Your task to perform on an android device: toggle improve location accuracy Image 0: 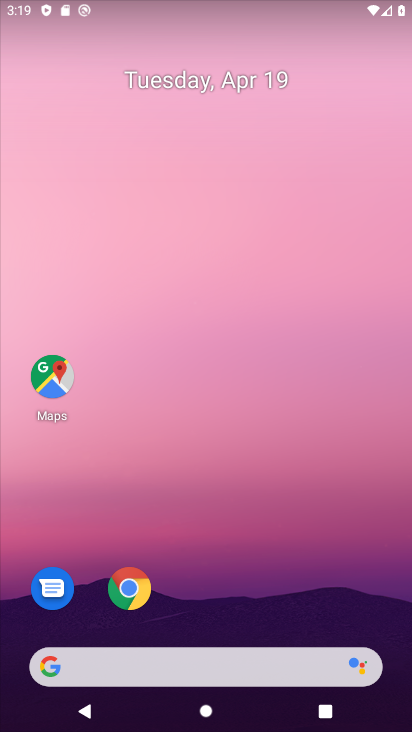
Step 0: drag from (243, 560) to (262, 134)
Your task to perform on an android device: toggle improve location accuracy Image 1: 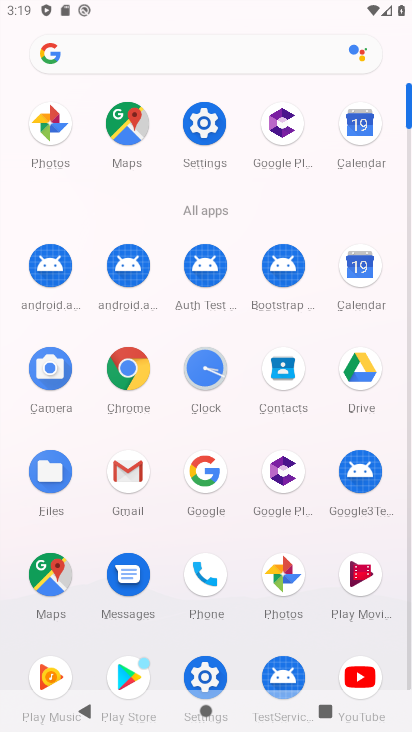
Step 1: click (193, 128)
Your task to perform on an android device: toggle improve location accuracy Image 2: 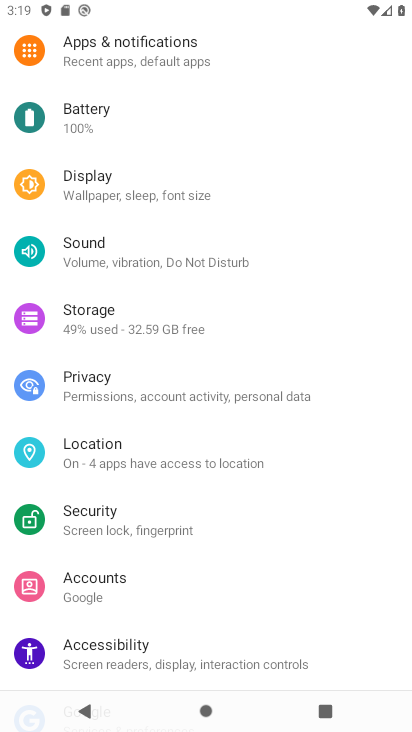
Step 2: click (137, 450)
Your task to perform on an android device: toggle improve location accuracy Image 3: 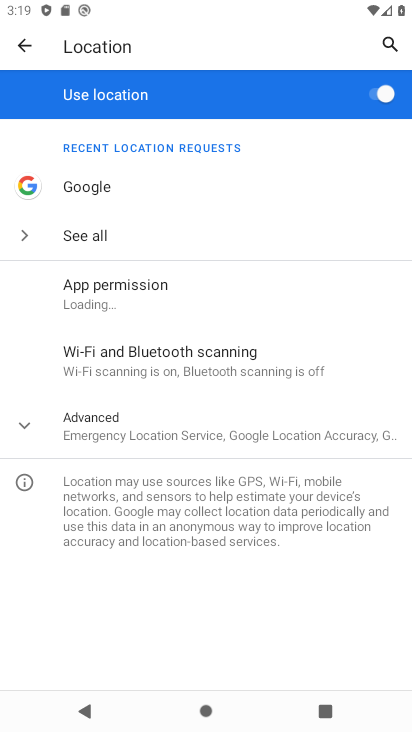
Step 3: click (163, 414)
Your task to perform on an android device: toggle improve location accuracy Image 4: 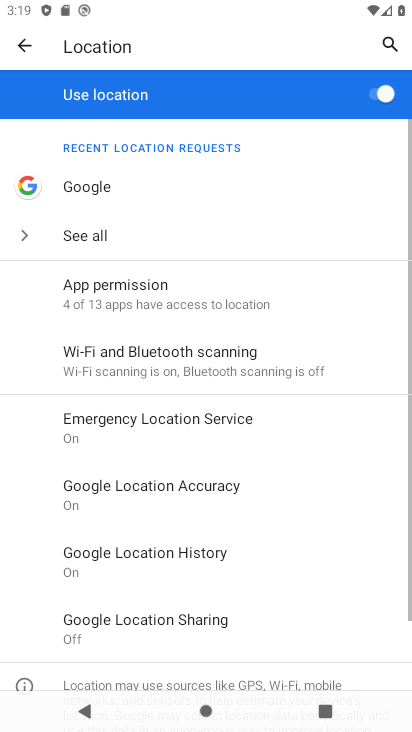
Step 4: click (193, 479)
Your task to perform on an android device: toggle improve location accuracy Image 5: 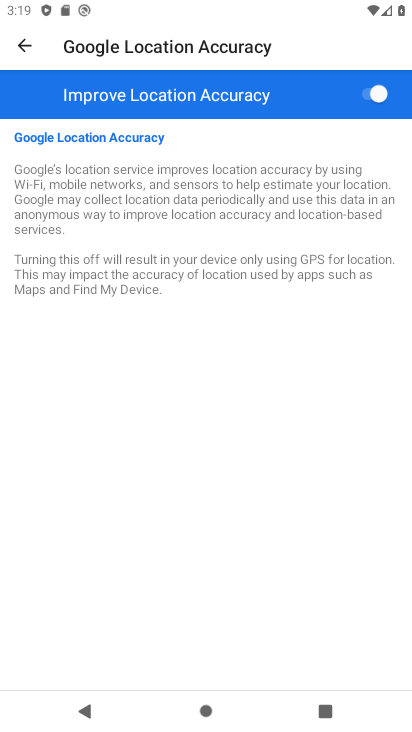
Step 5: click (371, 86)
Your task to perform on an android device: toggle improve location accuracy Image 6: 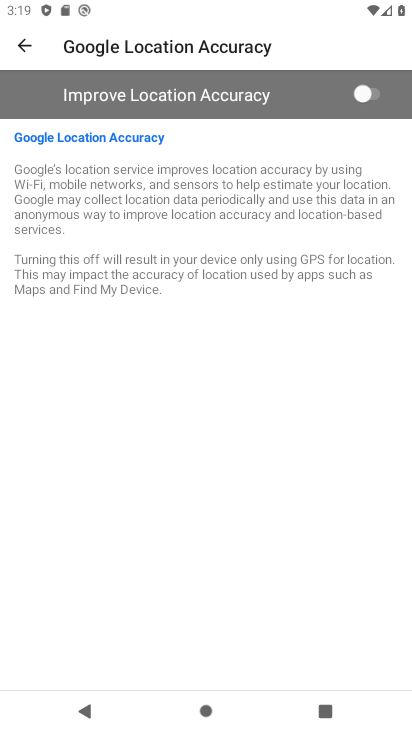
Step 6: task complete